Your task to perform on an android device: open chrome and create a bookmark for the current page Image 0: 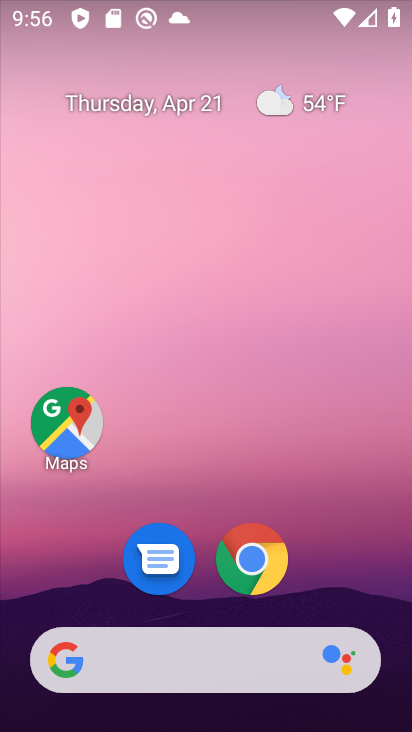
Step 0: drag from (210, 640) to (330, 172)
Your task to perform on an android device: open chrome and create a bookmark for the current page Image 1: 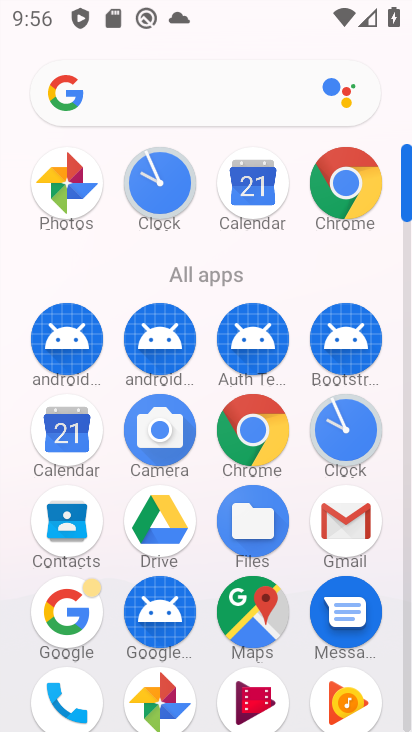
Step 1: click (349, 197)
Your task to perform on an android device: open chrome and create a bookmark for the current page Image 2: 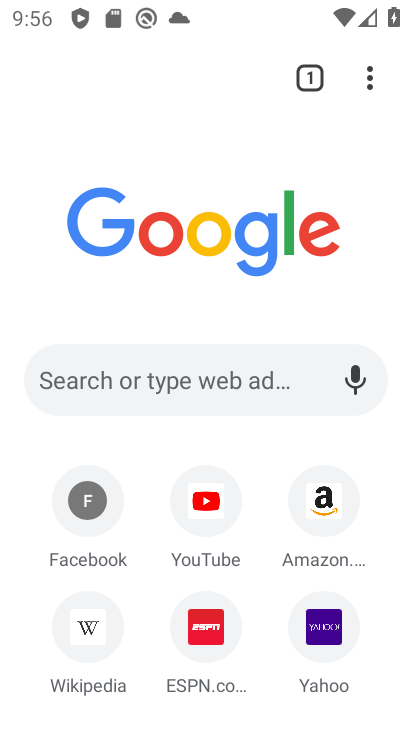
Step 2: click (360, 92)
Your task to perform on an android device: open chrome and create a bookmark for the current page Image 3: 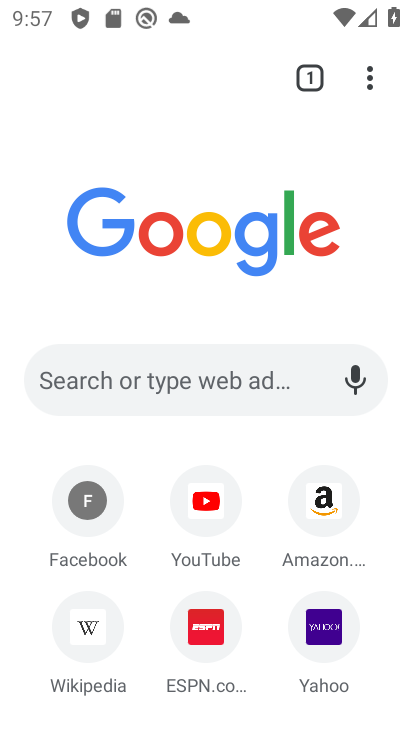
Step 3: click (363, 90)
Your task to perform on an android device: open chrome and create a bookmark for the current page Image 4: 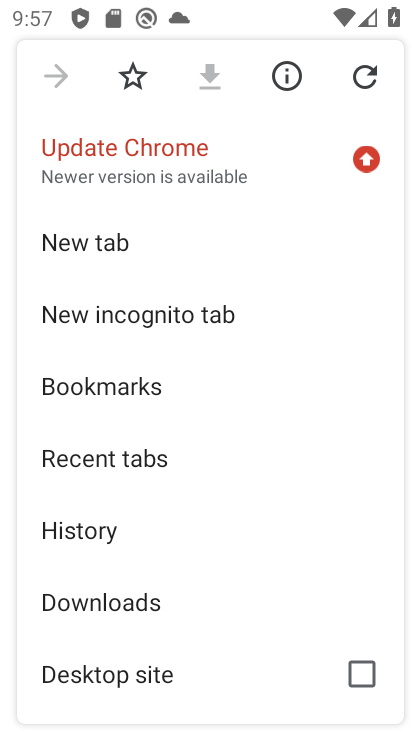
Step 4: click (132, 79)
Your task to perform on an android device: open chrome and create a bookmark for the current page Image 5: 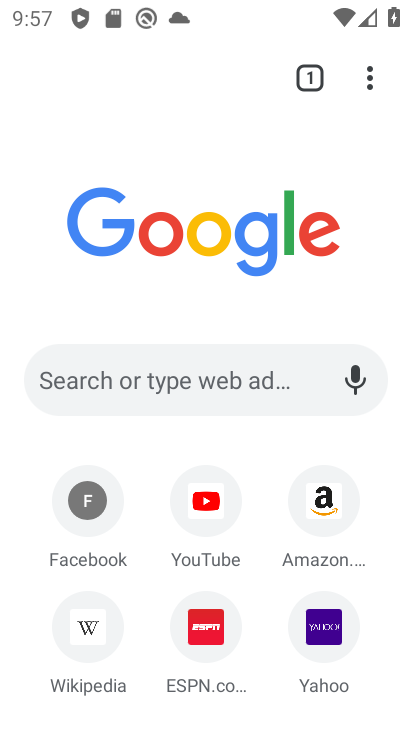
Step 5: task complete